Your task to perform on an android device: Clear all items from cart on walmart. Image 0: 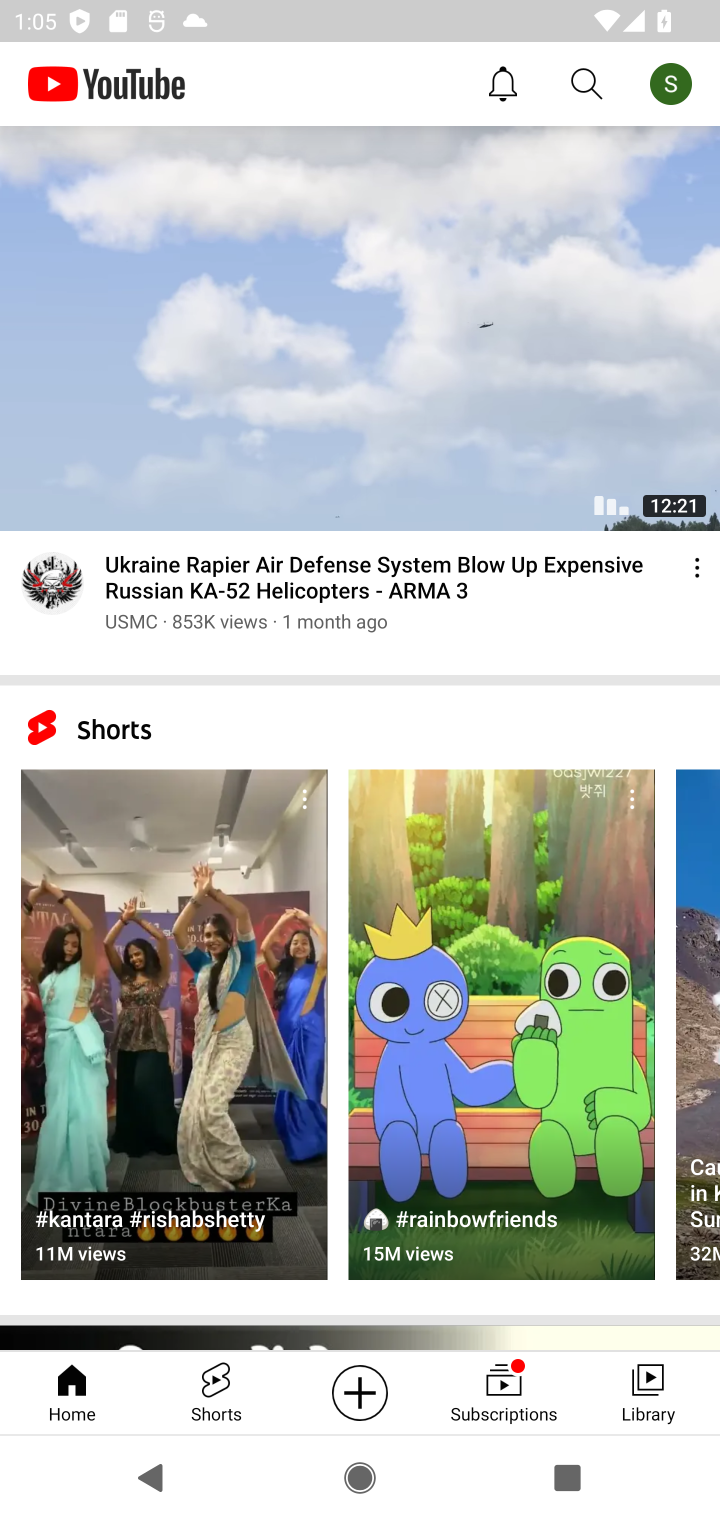
Step 0: press home button
Your task to perform on an android device: Clear all items from cart on walmart. Image 1: 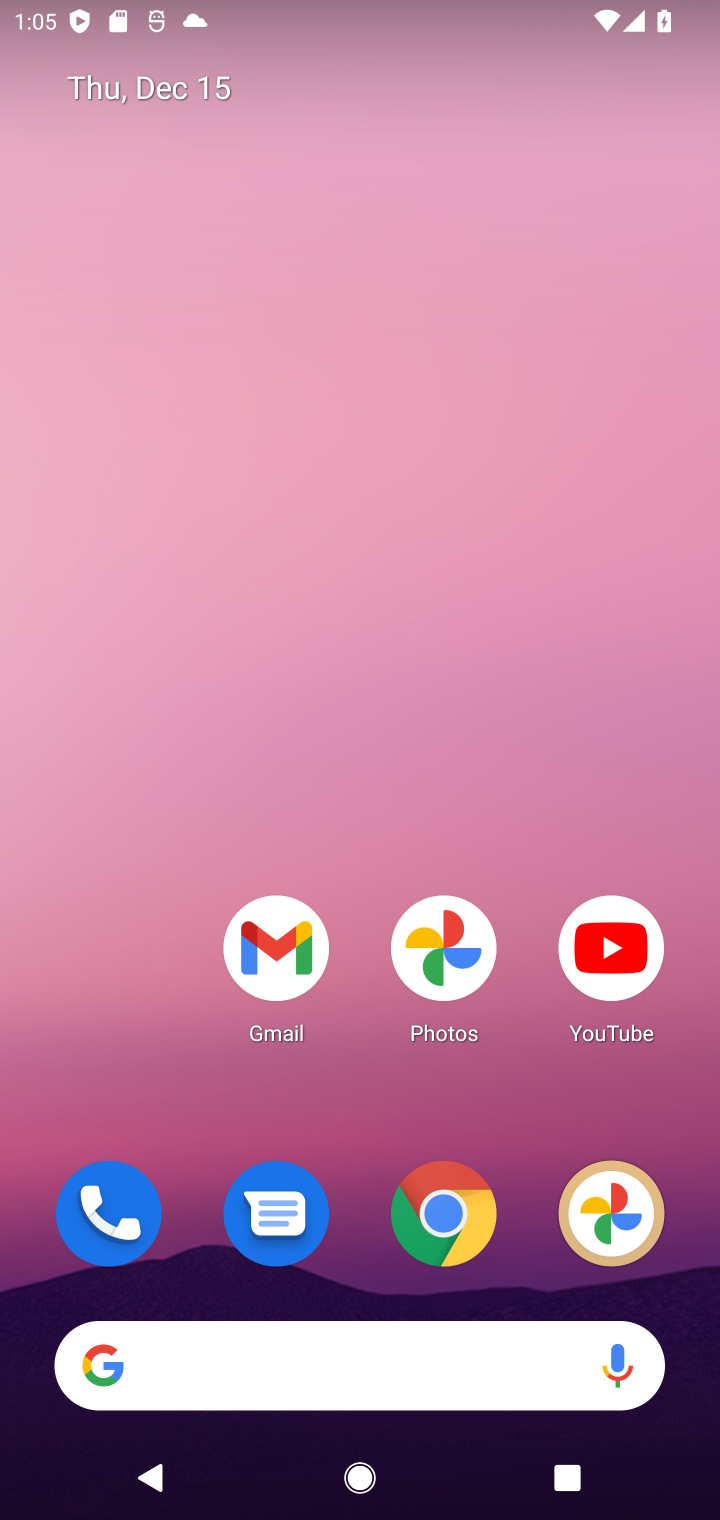
Step 1: click (431, 1223)
Your task to perform on an android device: Clear all items from cart on walmart. Image 2: 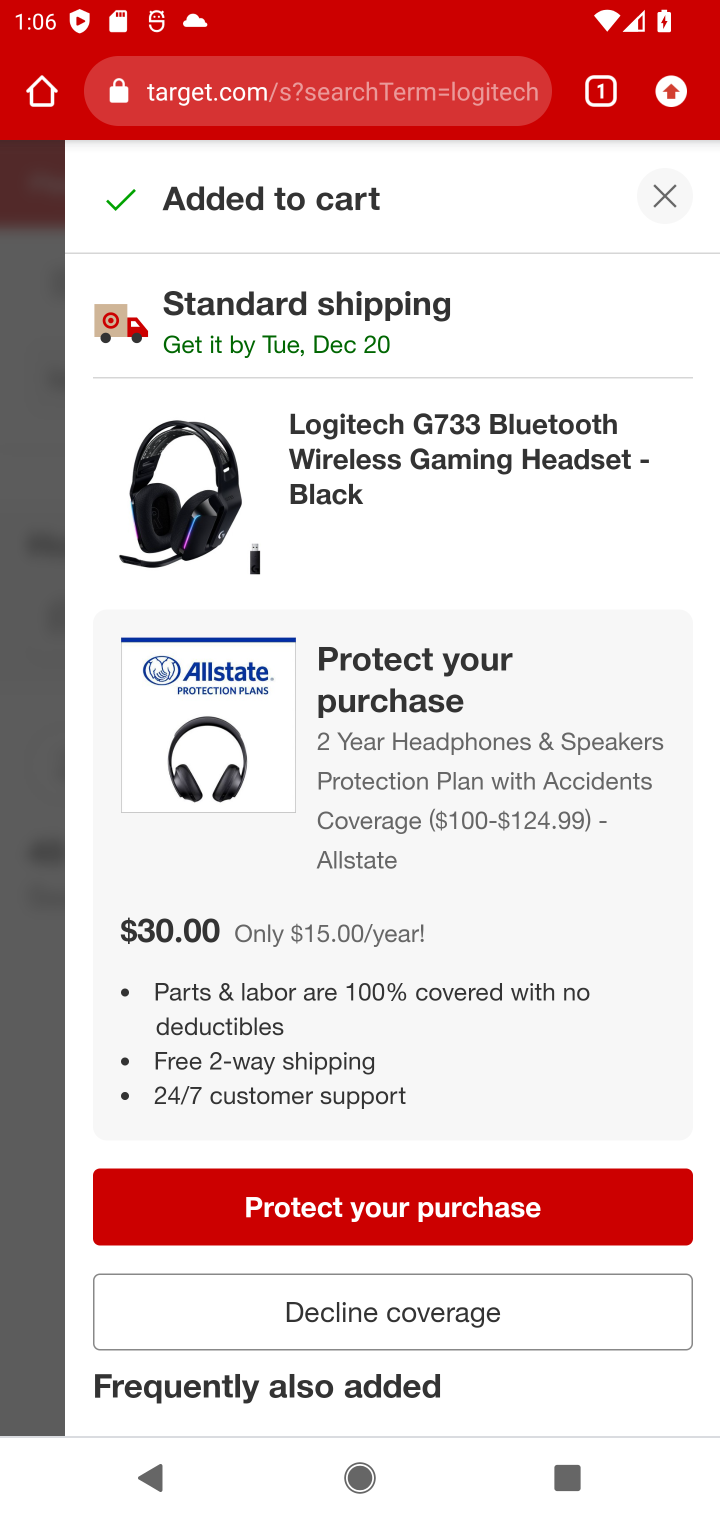
Step 2: task complete